Your task to perform on an android device: Open eBay Image 0: 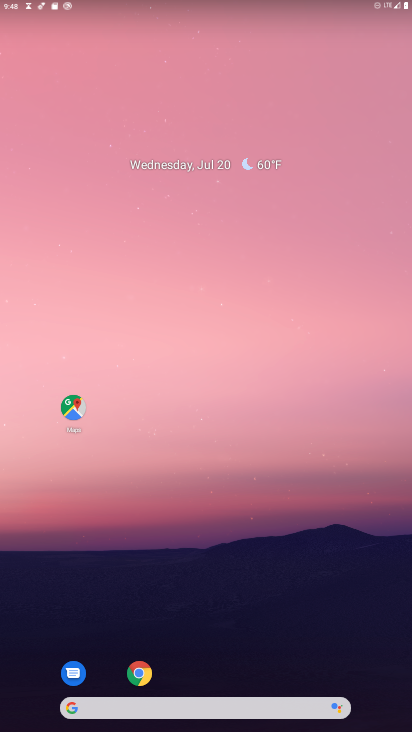
Step 0: click (139, 675)
Your task to perform on an android device: Open eBay Image 1: 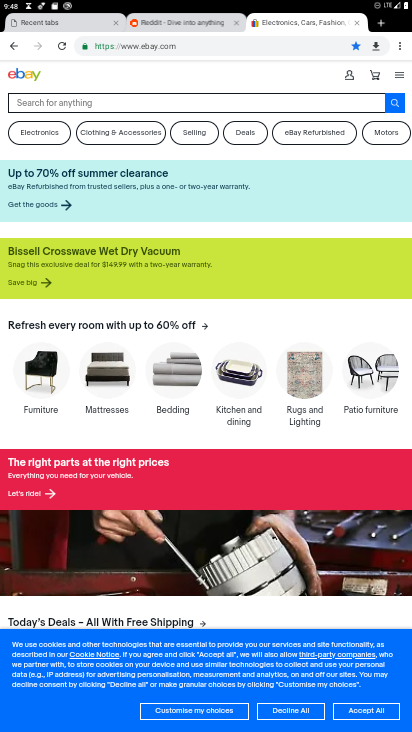
Step 1: task complete